Your task to perform on an android device: toggle show notifications on the lock screen Image 0: 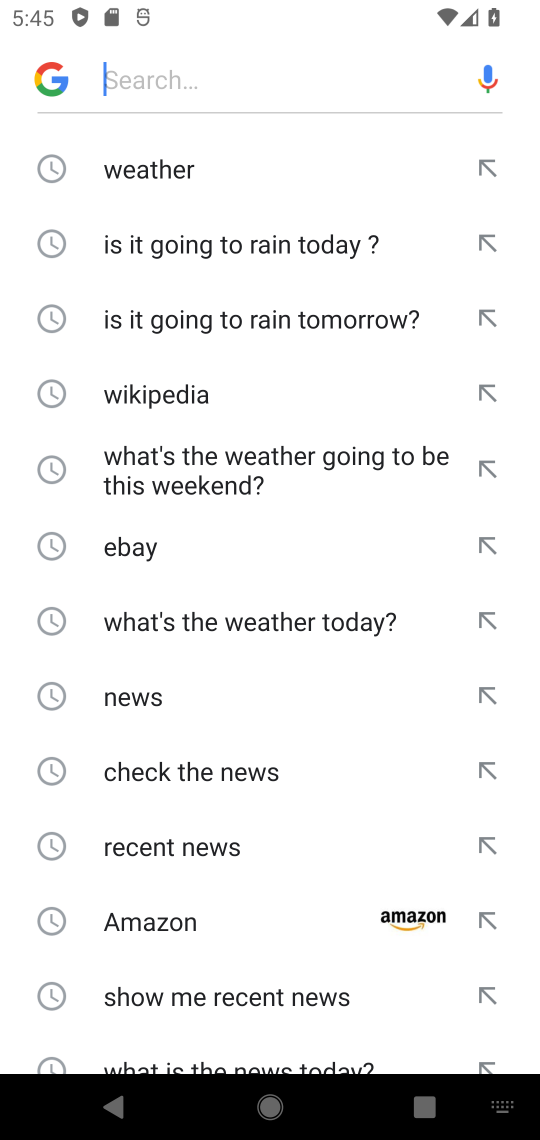
Step 0: press back button
Your task to perform on an android device: toggle show notifications on the lock screen Image 1: 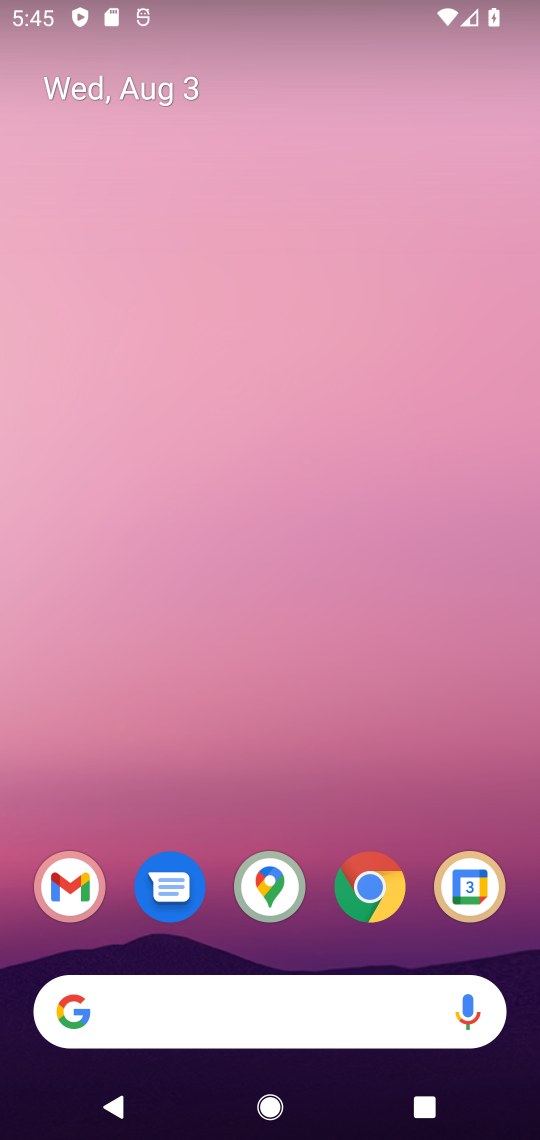
Step 1: drag from (285, 999) to (263, 14)
Your task to perform on an android device: toggle show notifications on the lock screen Image 2: 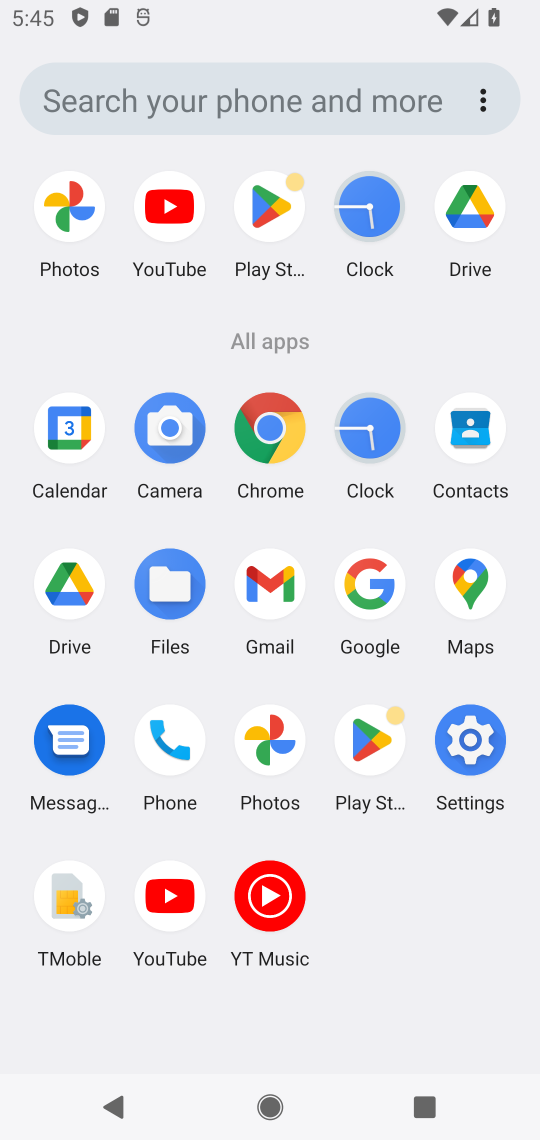
Step 2: click (466, 755)
Your task to perform on an android device: toggle show notifications on the lock screen Image 3: 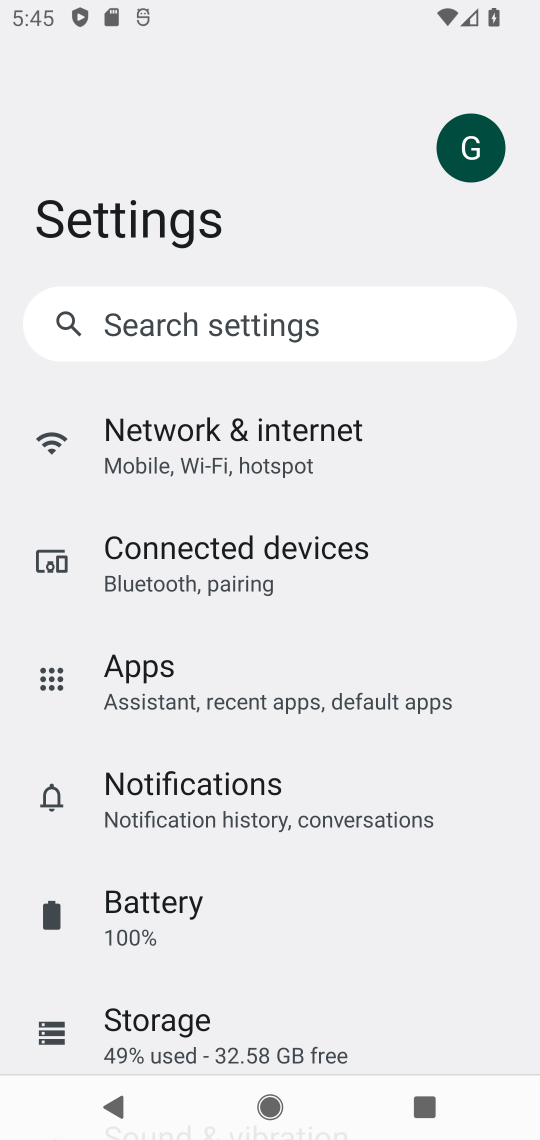
Step 3: click (188, 821)
Your task to perform on an android device: toggle show notifications on the lock screen Image 4: 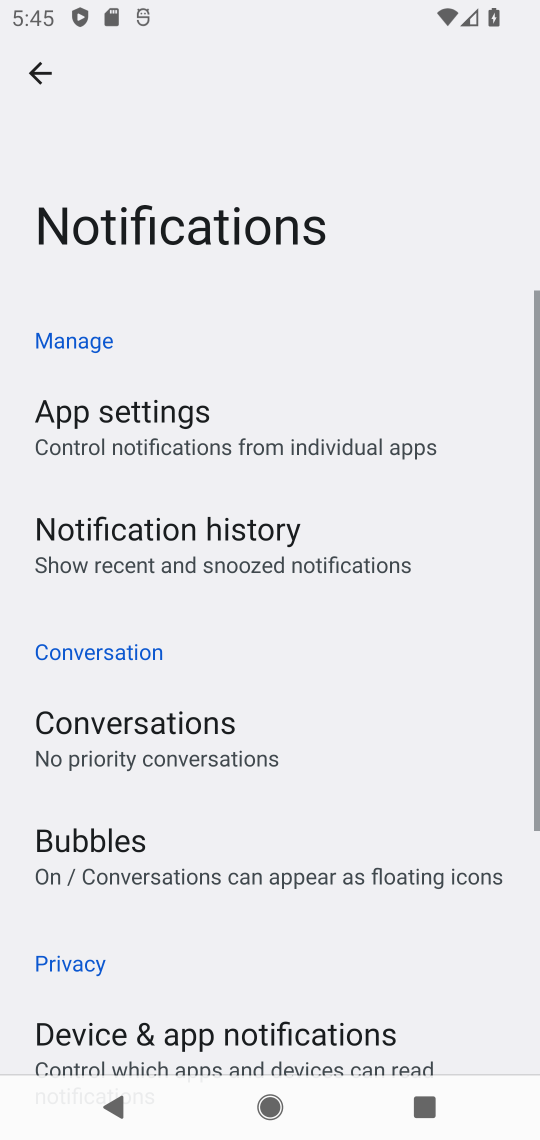
Step 4: drag from (213, 893) to (179, 36)
Your task to perform on an android device: toggle show notifications on the lock screen Image 5: 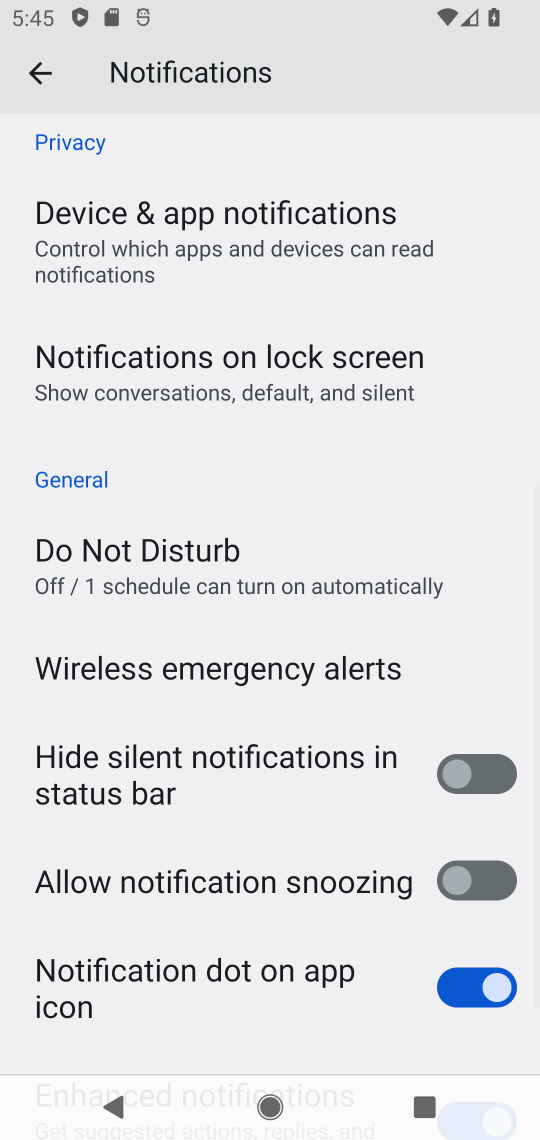
Step 5: drag from (218, 977) to (203, 66)
Your task to perform on an android device: toggle show notifications on the lock screen Image 6: 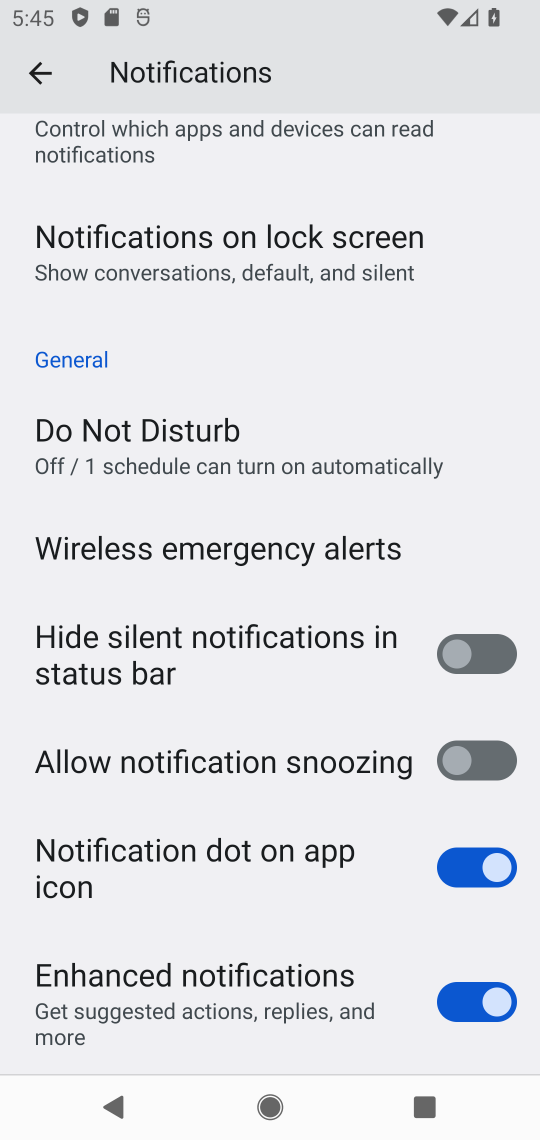
Step 6: click (195, 250)
Your task to perform on an android device: toggle show notifications on the lock screen Image 7: 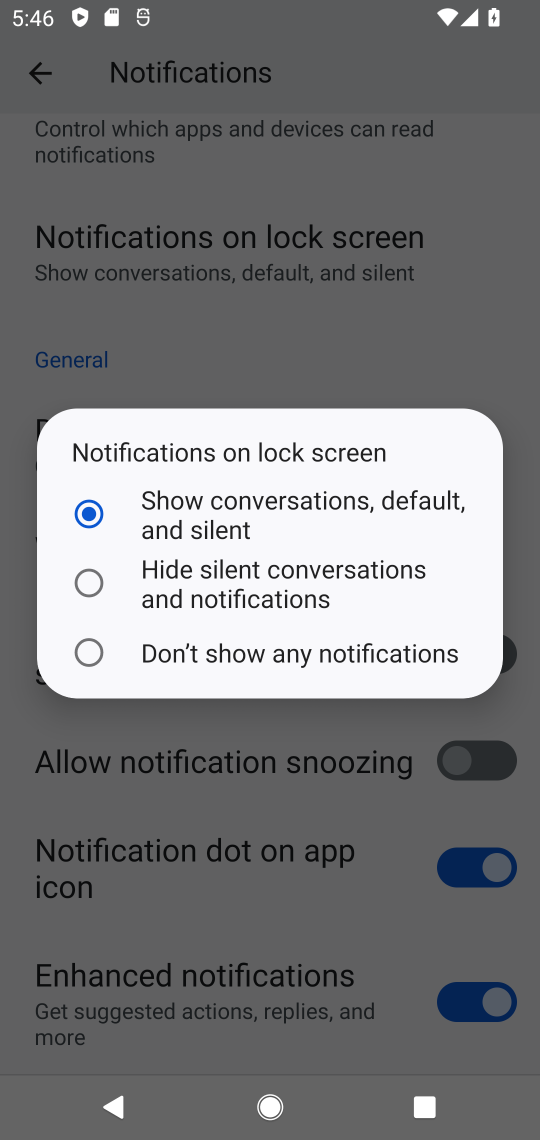
Step 7: click (196, 594)
Your task to perform on an android device: toggle show notifications on the lock screen Image 8: 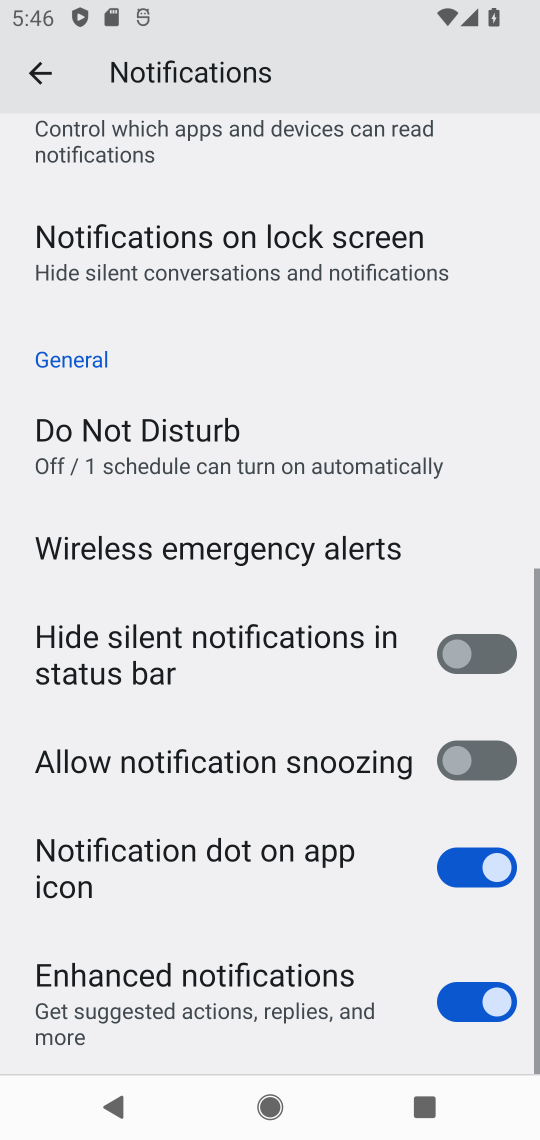
Step 8: task complete